Your task to perform on an android device: Open wifi settings Image 0: 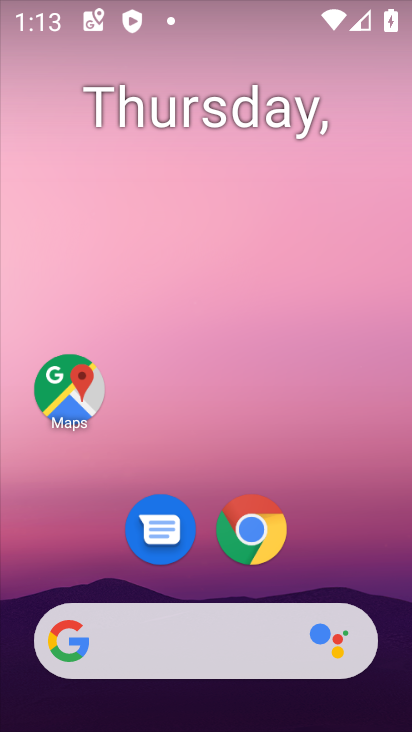
Step 0: drag from (367, 553) to (364, 130)
Your task to perform on an android device: Open wifi settings Image 1: 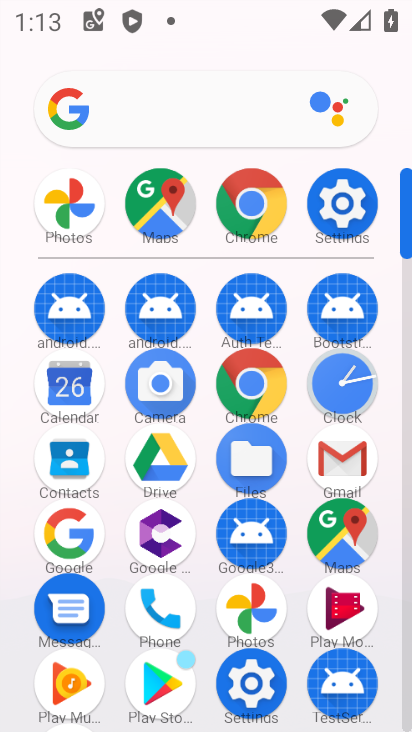
Step 1: click (262, 703)
Your task to perform on an android device: Open wifi settings Image 2: 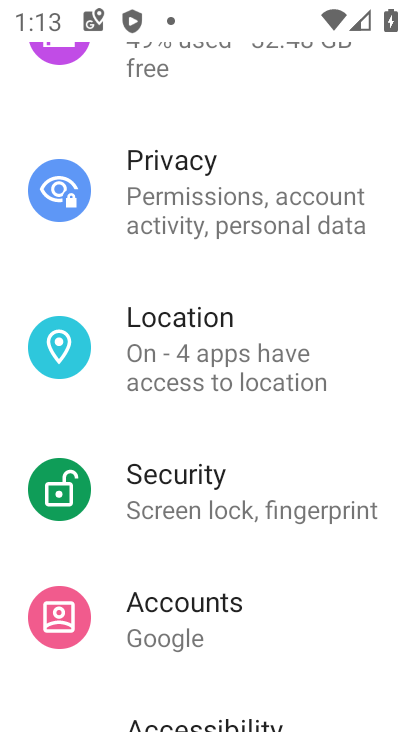
Step 2: drag from (277, 210) to (270, 657)
Your task to perform on an android device: Open wifi settings Image 3: 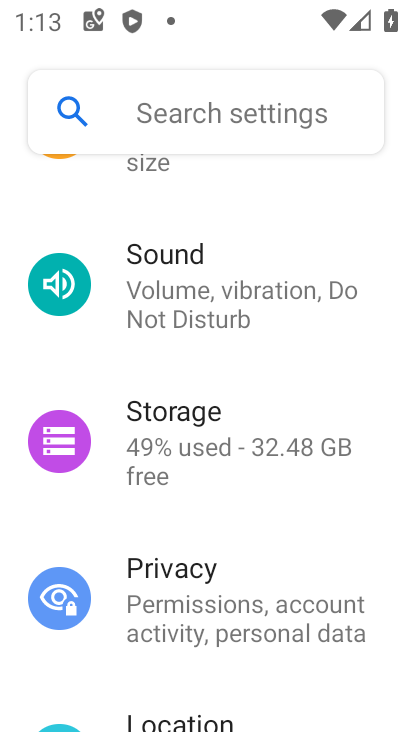
Step 3: drag from (263, 222) to (308, 632)
Your task to perform on an android device: Open wifi settings Image 4: 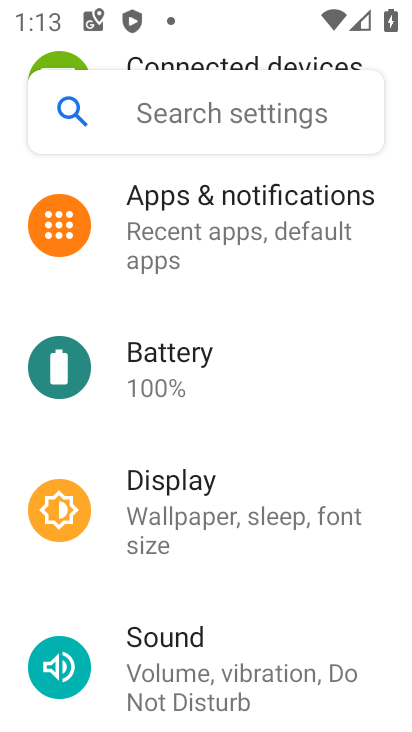
Step 4: drag from (192, 193) to (280, 655)
Your task to perform on an android device: Open wifi settings Image 5: 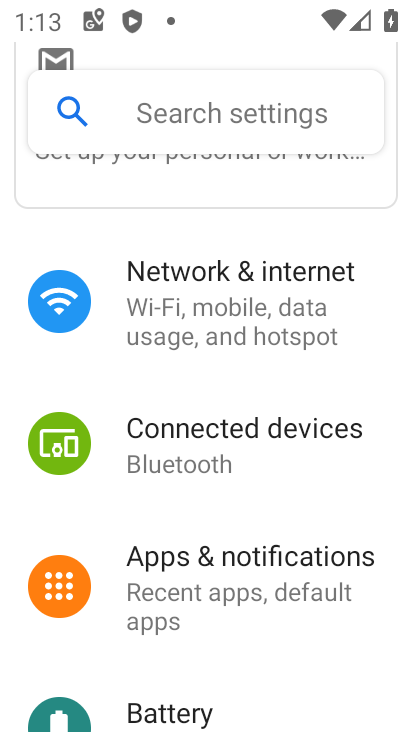
Step 5: drag from (219, 305) to (242, 731)
Your task to perform on an android device: Open wifi settings Image 6: 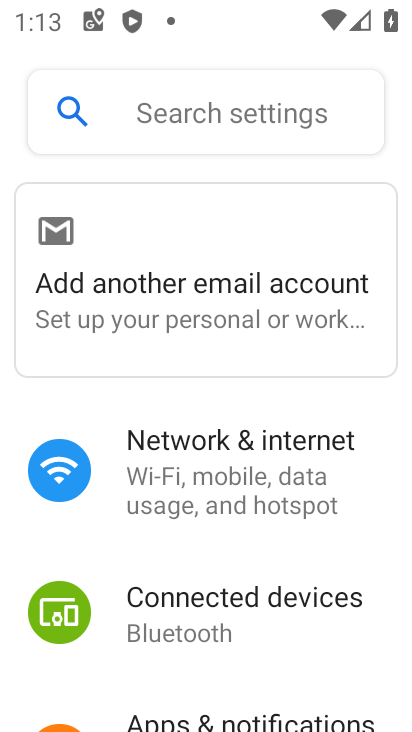
Step 6: click (222, 493)
Your task to perform on an android device: Open wifi settings Image 7: 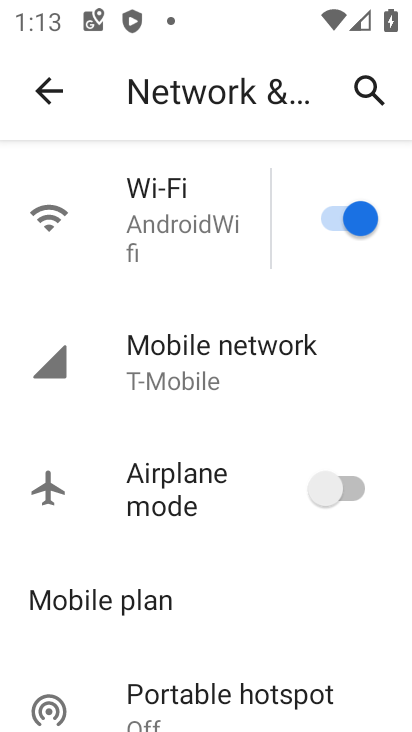
Step 7: click (176, 235)
Your task to perform on an android device: Open wifi settings Image 8: 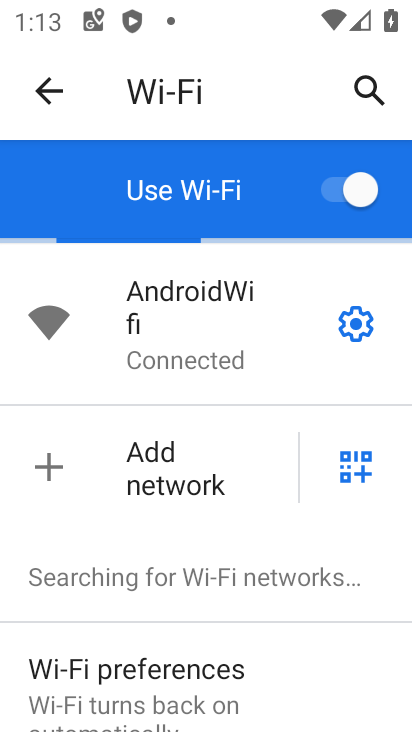
Step 8: click (358, 331)
Your task to perform on an android device: Open wifi settings Image 9: 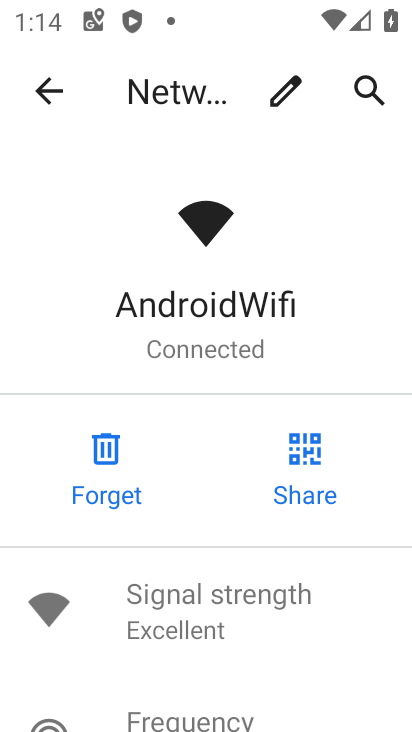
Step 9: task complete